Your task to perform on an android device: set the timer Image 0: 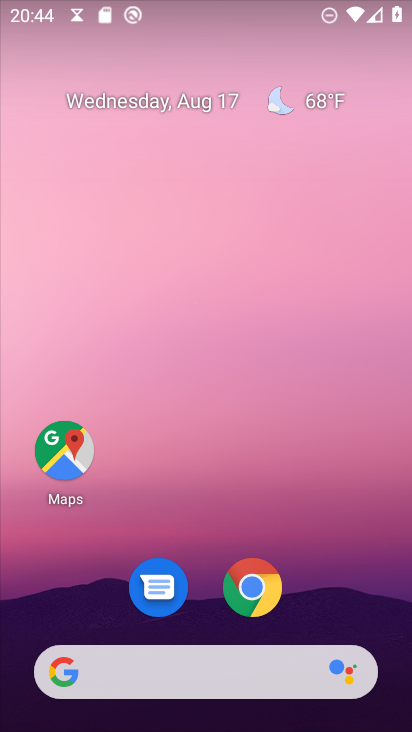
Step 0: drag from (5, 700) to (258, 201)
Your task to perform on an android device: set the timer Image 1: 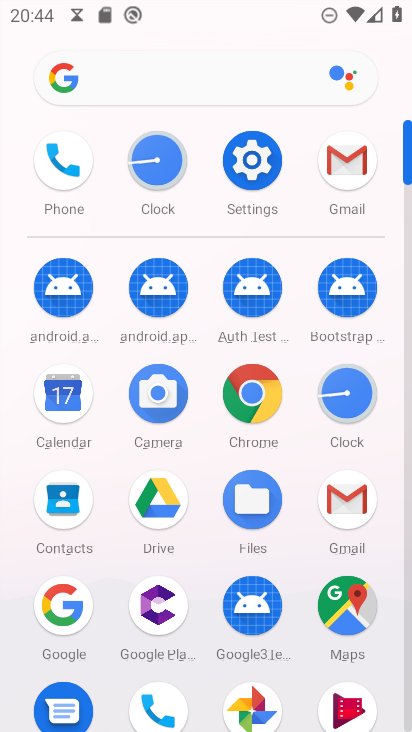
Step 1: click (172, 160)
Your task to perform on an android device: set the timer Image 2: 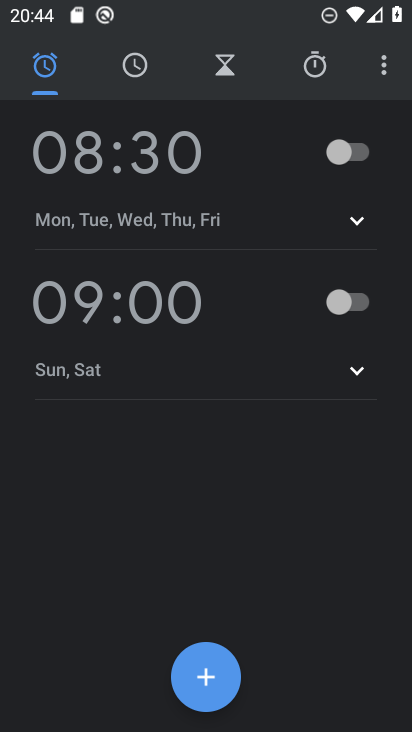
Step 2: click (136, 77)
Your task to perform on an android device: set the timer Image 3: 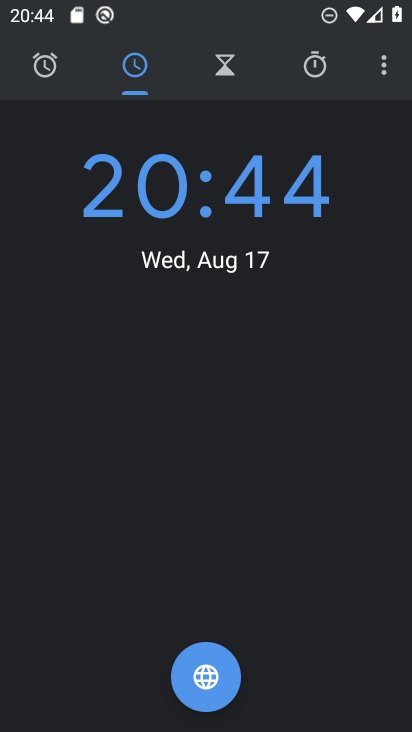
Step 3: click (231, 74)
Your task to perform on an android device: set the timer Image 4: 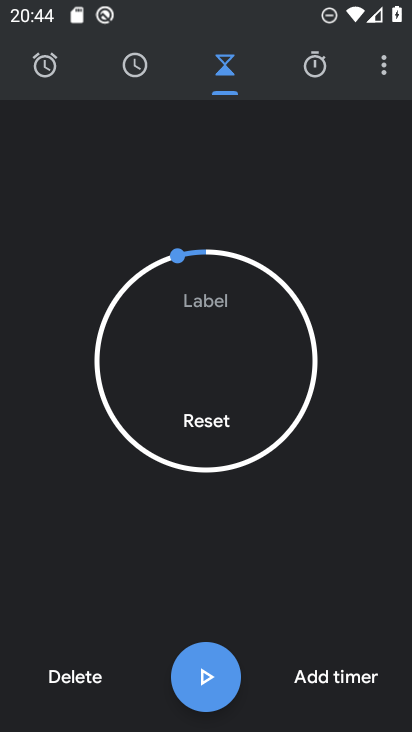
Step 4: click (189, 681)
Your task to perform on an android device: set the timer Image 5: 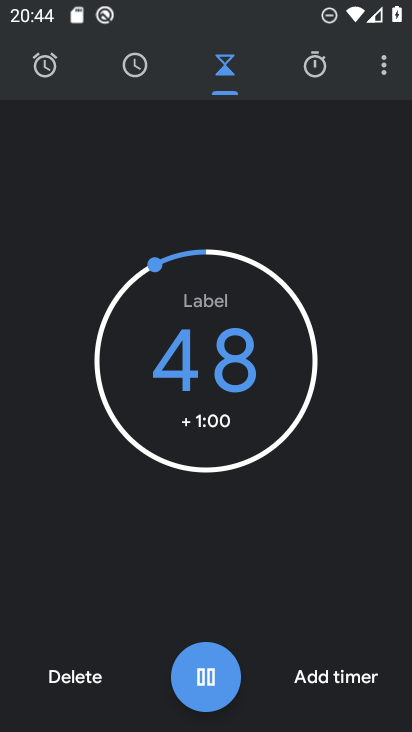
Step 5: click (189, 681)
Your task to perform on an android device: set the timer Image 6: 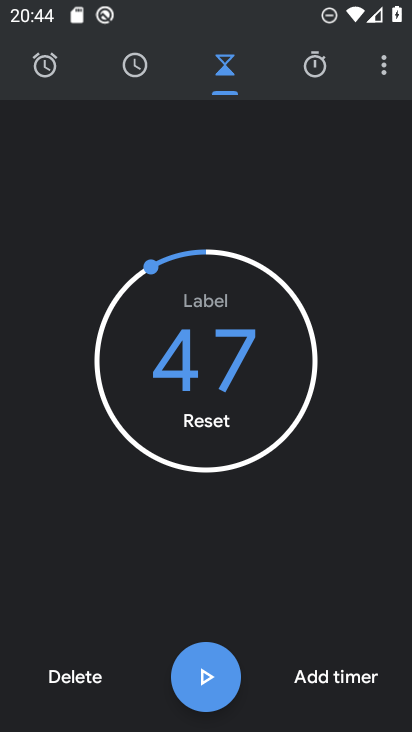
Step 6: task complete